Your task to perform on an android device: toggle wifi Image 0: 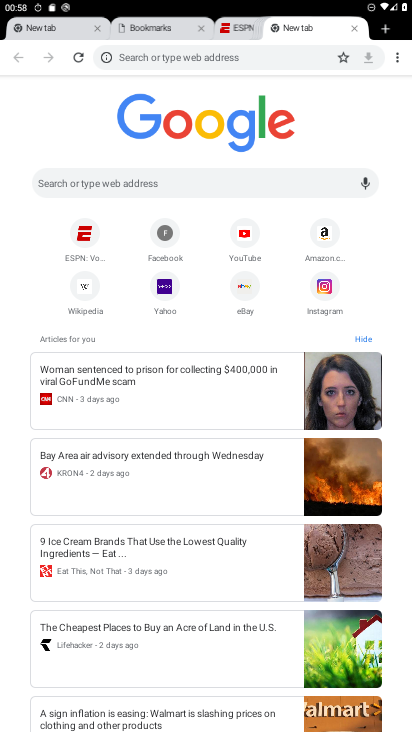
Step 0: press home button
Your task to perform on an android device: toggle wifi Image 1: 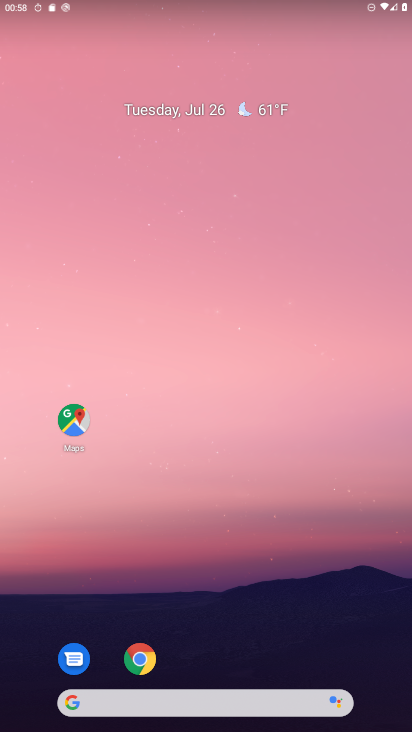
Step 1: drag from (46, 636) to (237, 178)
Your task to perform on an android device: toggle wifi Image 2: 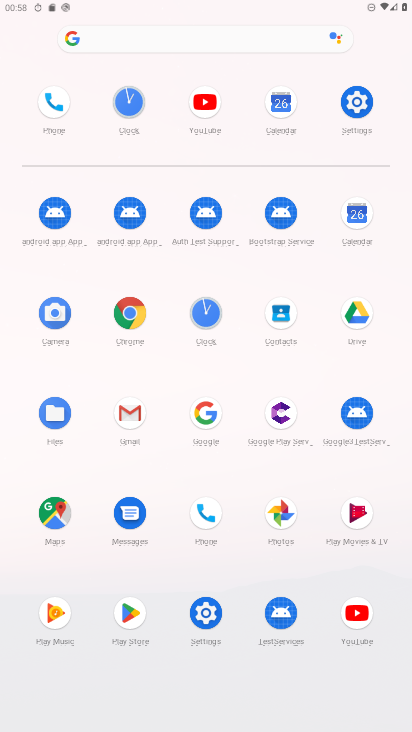
Step 2: click (195, 613)
Your task to perform on an android device: toggle wifi Image 3: 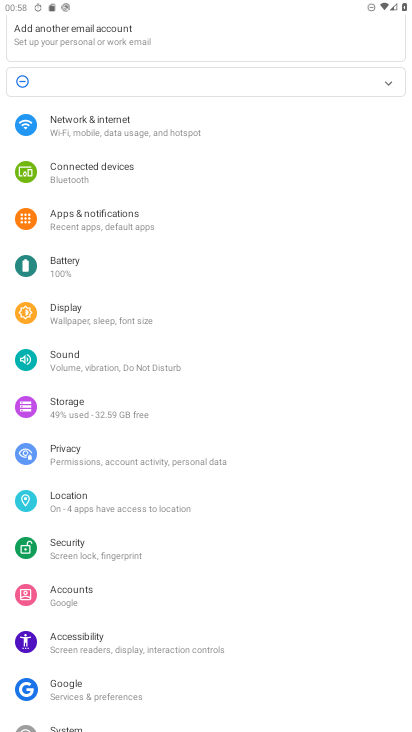
Step 3: click (118, 120)
Your task to perform on an android device: toggle wifi Image 4: 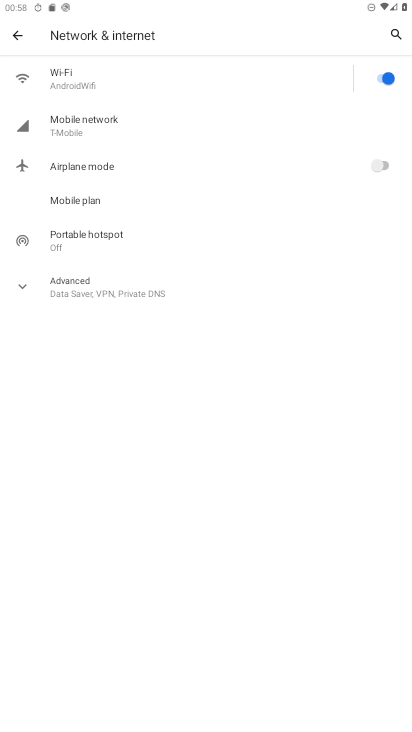
Step 4: task complete